Your task to perform on an android device: star an email in the gmail app Image 0: 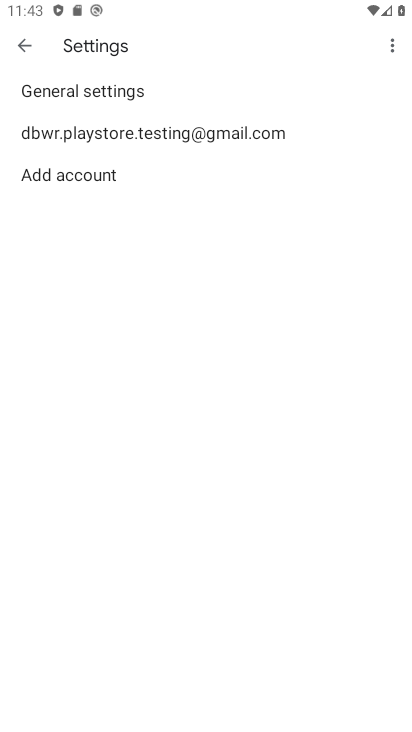
Step 0: press home button
Your task to perform on an android device: star an email in the gmail app Image 1: 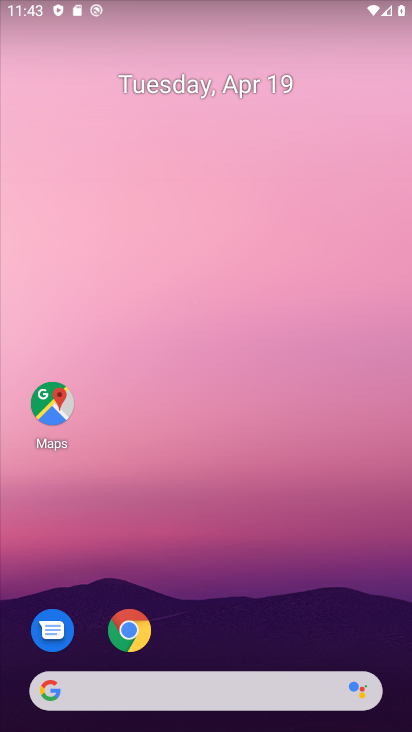
Step 1: drag from (328, 633) to (314, 289)
Your task to perform on an android device: star an email in the gmail app Image 2: 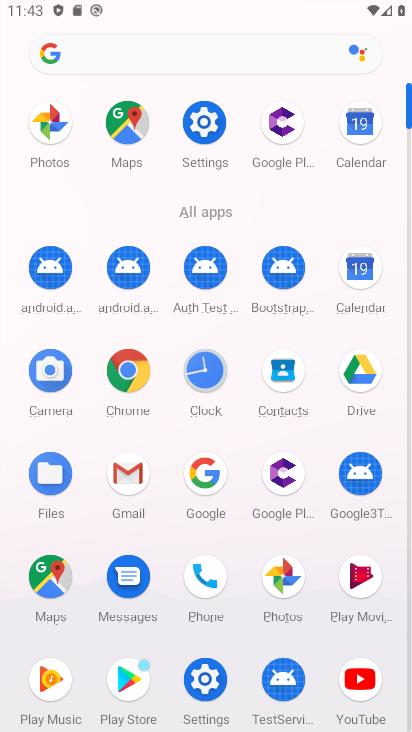
Step 2: click (409, 684)
Your task to perform on an android device: star an email in the gmail app Image 3: 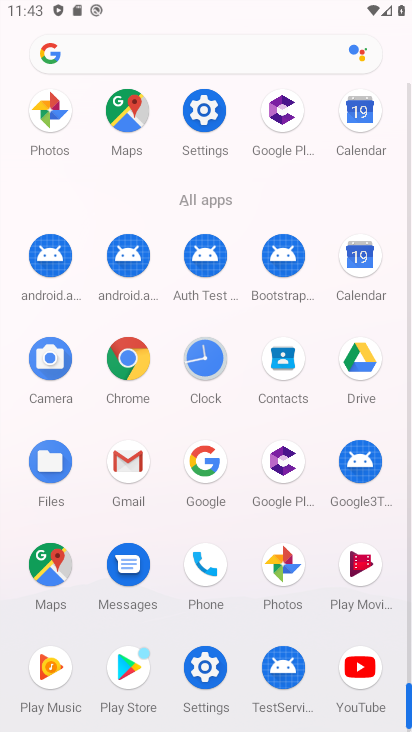
Step 3: click (124, 461)
Your task to perform on an android device: star an email in the gmail app Image 4: 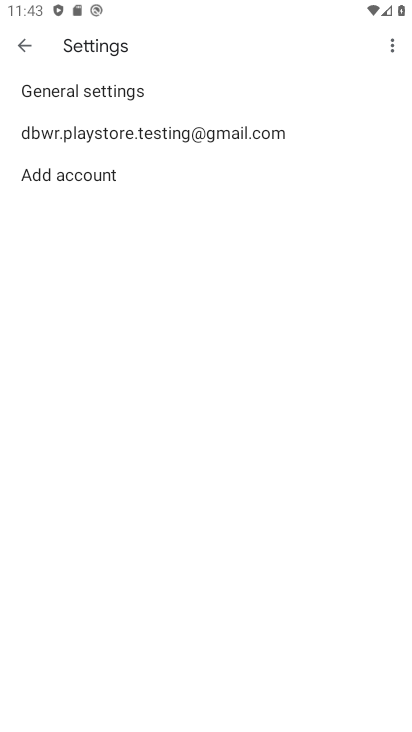
Step 4: press back button
Your task to perform on an android device: star an email in the gmail app Image 5: 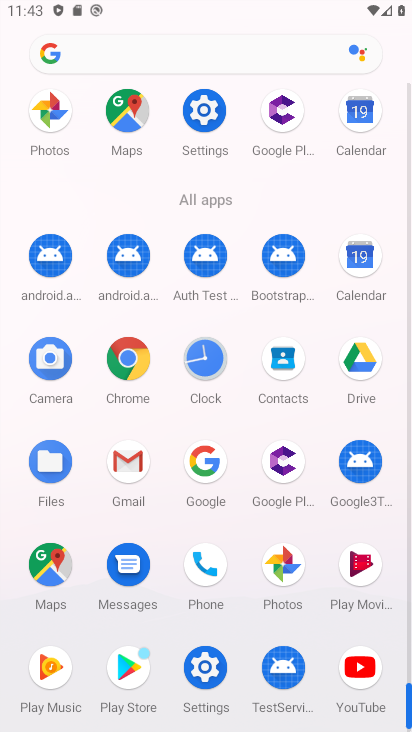
Step 5: click (126, 464)
Your task to perform on an android device: star an email in the gmail app Image 6: 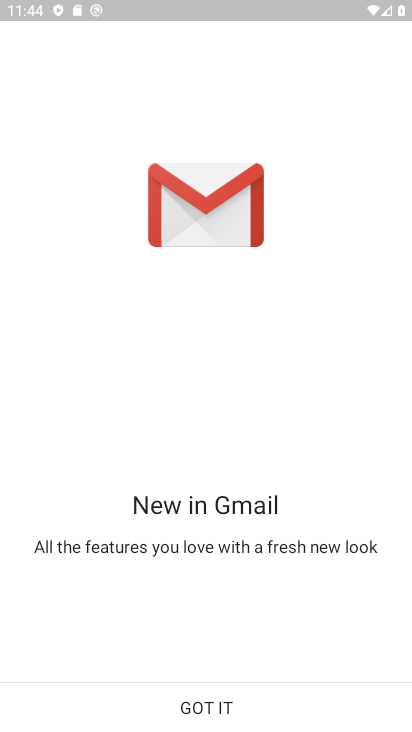
Step 6: click (214, 708)
Your task to perform on an android device: star an email in the gmail app Image 7: 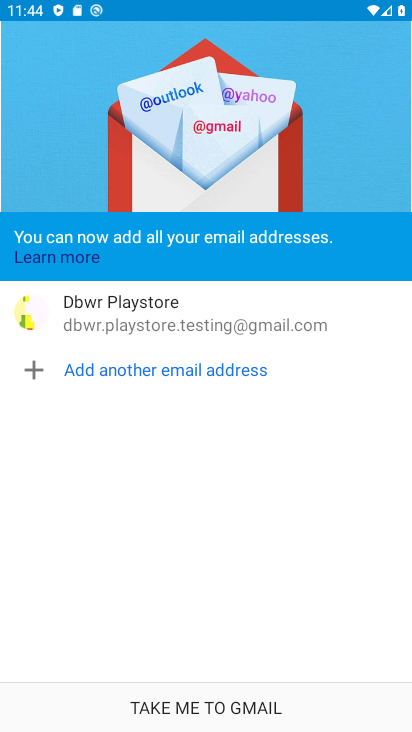
Step 7: click (217, 707)
Your task to perform on an android device: star an email in the gmail app Image 8: 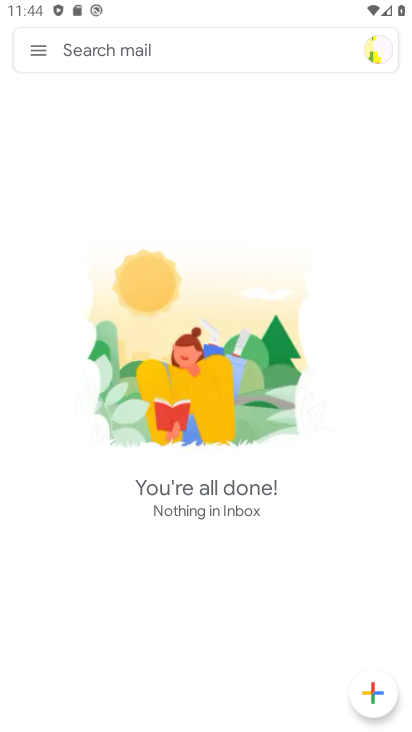
Step 8: click (39, 52)
Your task to perform on an android device: star an email in the gmail app Image 9: 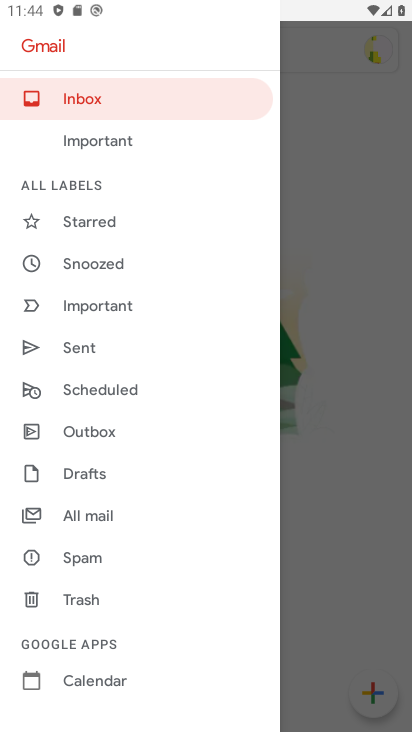
Step 9: click (88, 508)
Your task to perform on an android device: star an email in the gmail app Image 10: 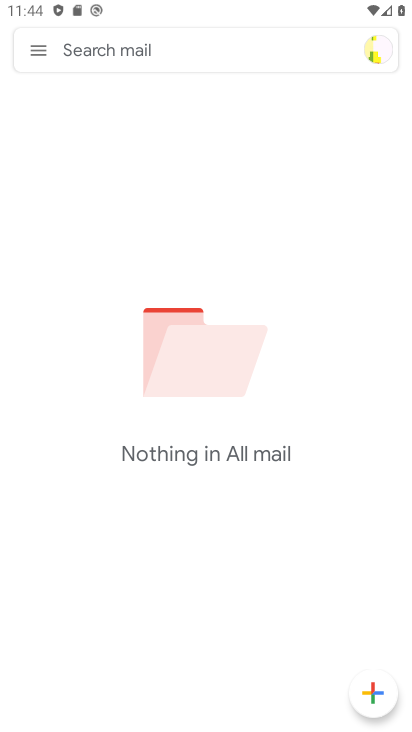
Step 10: task complete